Your task to perform on an android device: check storage Image 0: 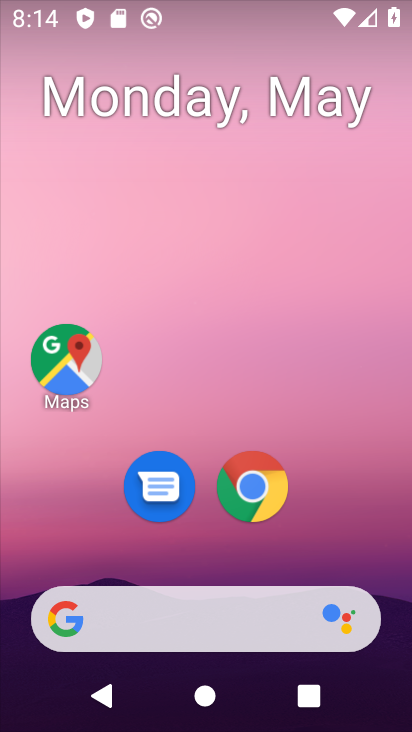
Step 0: drag from (196, 481) to (143, 52)
Your task to perform on an android device: check storage Image 1: 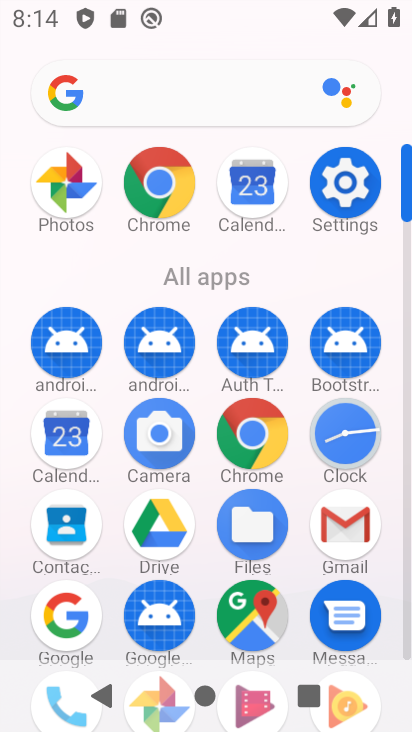
Step 1: click (322, 180)
Your task to perform on an android device: check storage Image 2: 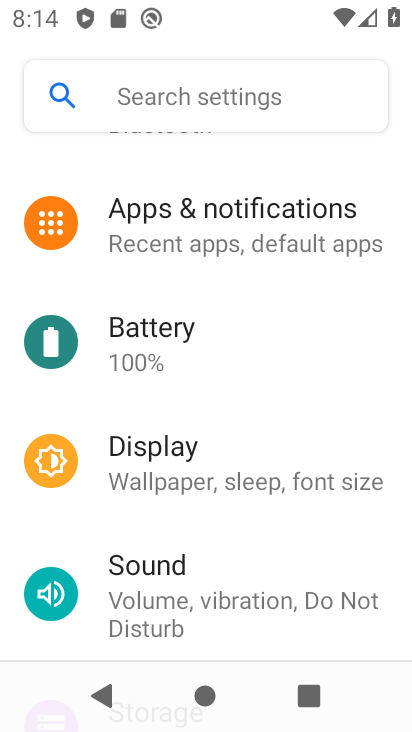
Step 2: drag from (188, 534) to (171, 303)
Your task to perform on an android device: check storage Image 3: 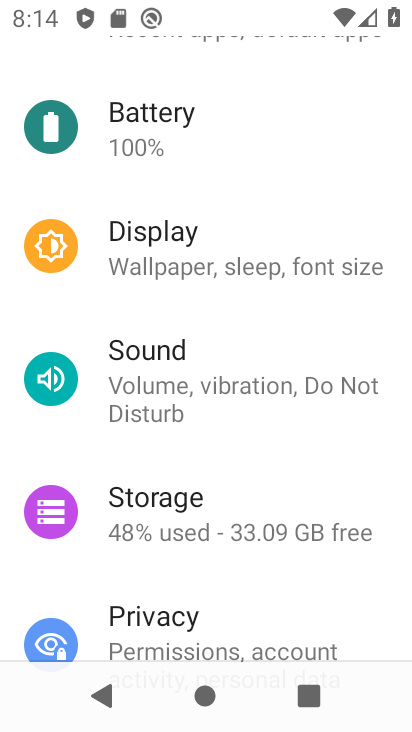
Step 3: click (217, 532)
Your task to perform on an android device: check storage Image 4: 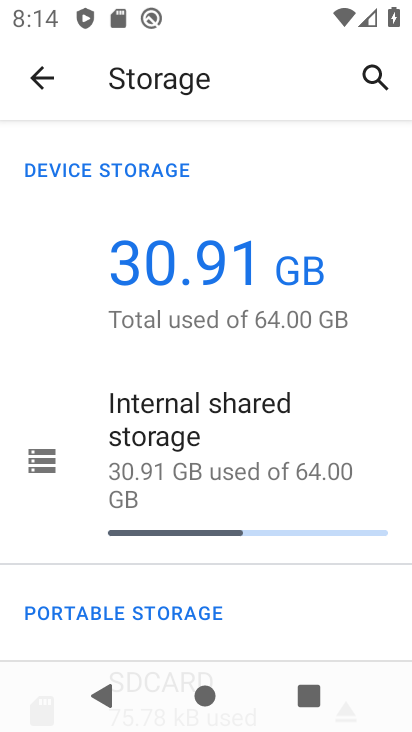
Step 4: task complete